Your task to perform on an android device: Open Youtube and go to "Your channel" Image 0: 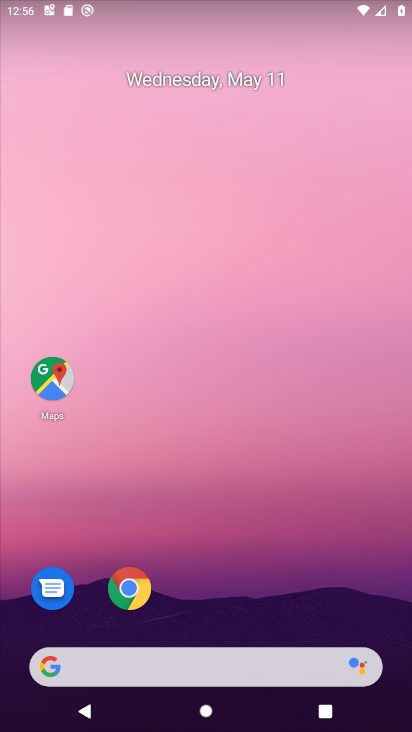
Step 0: drag from (169, 649) to (265, 235)
Your task to perform on an android device: Open Youtube and go to "Your channel" Image 1: 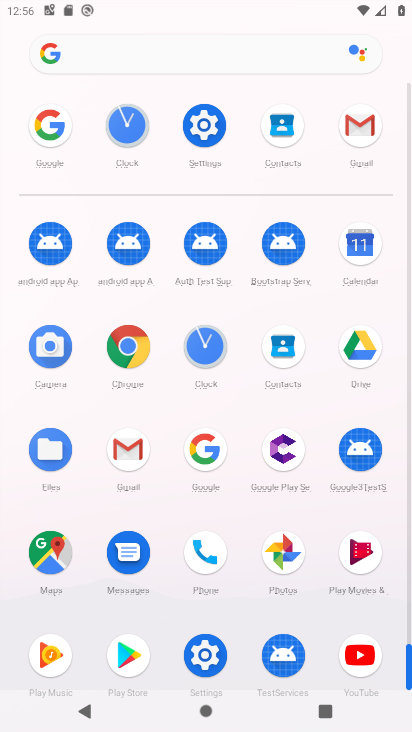
Step 1: click (358, 666)
Your task to perform on an android device: Open Youtube and go to "Your channel" Image 2: 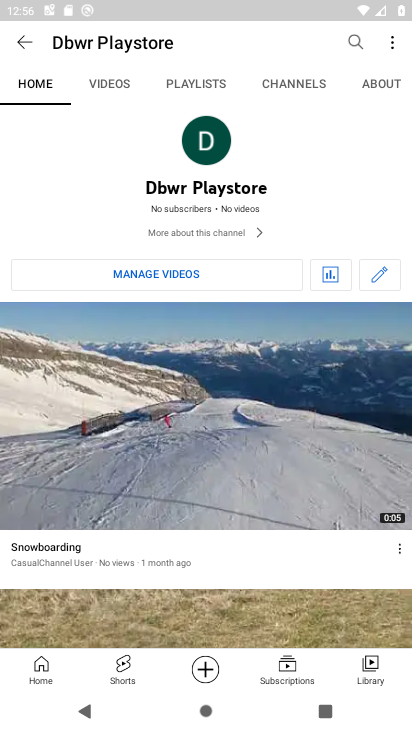
Step 2: click (396, 44)
Your task to perform on an android device: Open Youtube and go to "Your channel" Image 3: 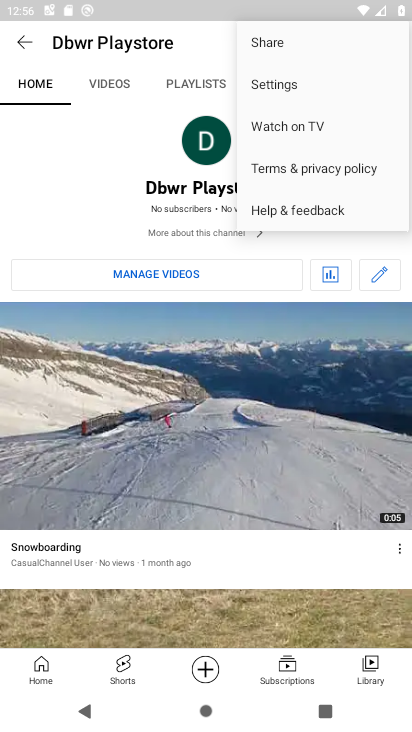
Step 3: click (274, 88)
Your task to perform on an android device: Open Youtube and go to "Your channel" Image 4: 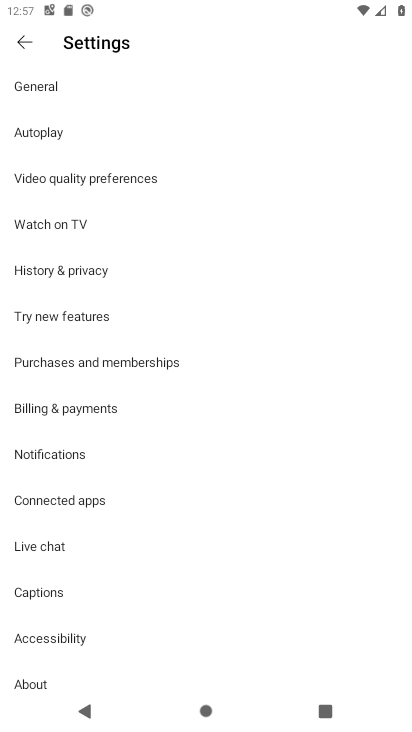
Step 4: click (34, 43)
Your task to perform on an android device: Open Youtube and go to "Your channel" Image 5: 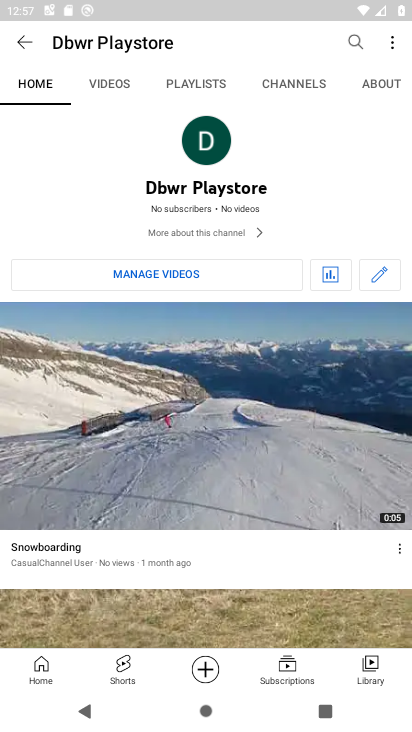
Step 5: click (287, 82)
Your task to perform on an android device: Open Youtube and go to "Your channel" Image 6: 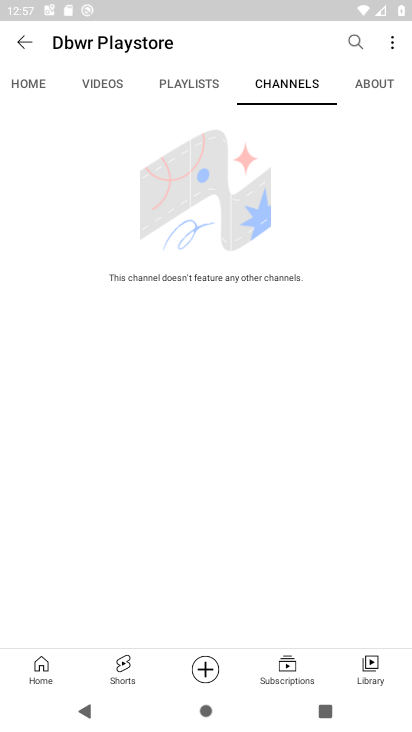
Step 6: click (20, 44)
Your task to perform on an android device: Open Youtube and go to "Your channel" Image 7: 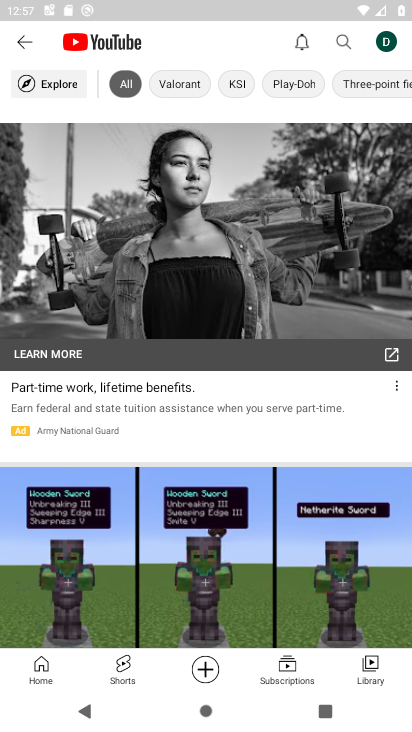
Step 7: click (397, 42)
Your task to perform on an android device: Open Youtube and go to "Your channel" Image 8: 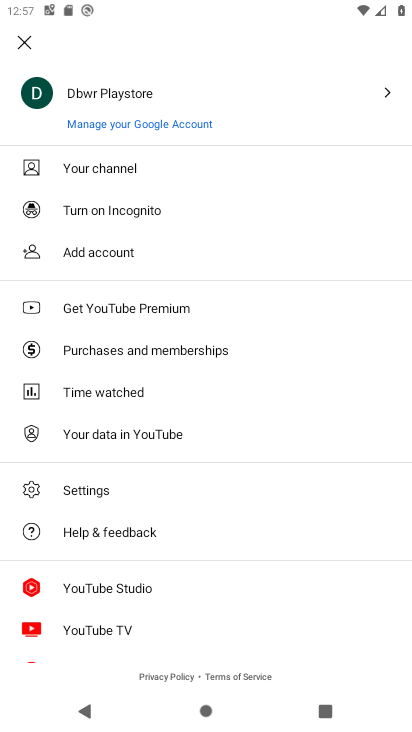
Step 8: click (85, 177)
Your task to perform on an android device: Open Youtube and go to "Your channel" Image 9: 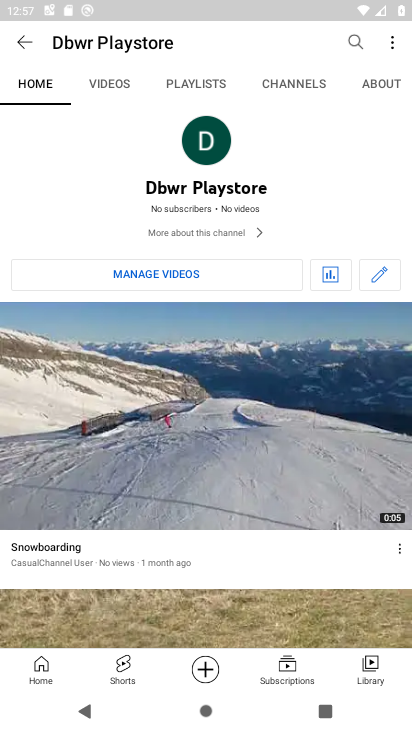
Step 9: task complete